Your task to perform on an android device: refresh tabs in the chrome app Image 0: 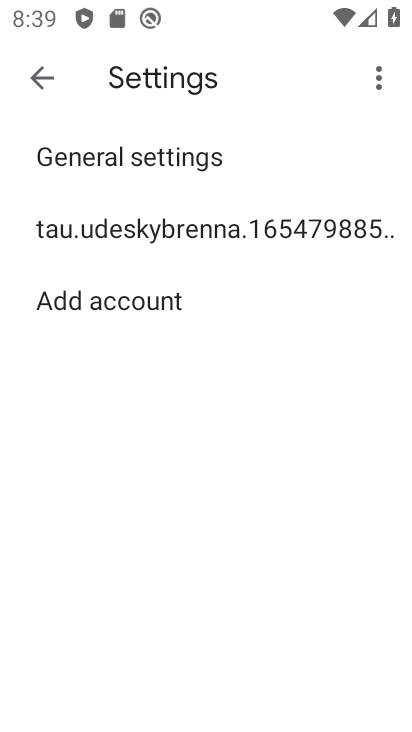
Step 0: press home button
Your task to perform on an android device: refresh tabs in the chrome app Image 1: 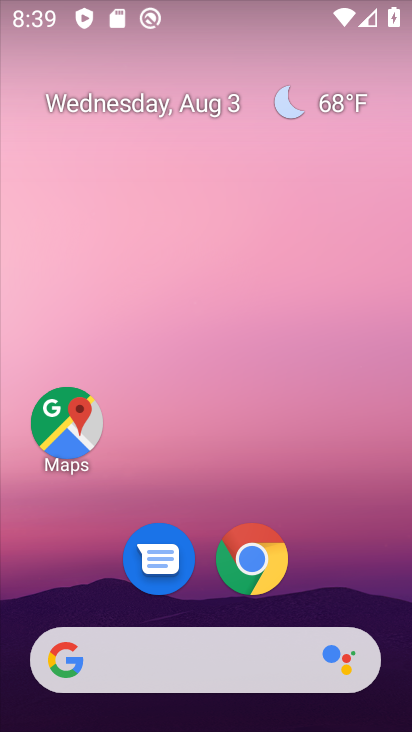
Step 1: click (259, 573)
Your task to perform on an android device: refresh tabs in the chrome app Image 2: 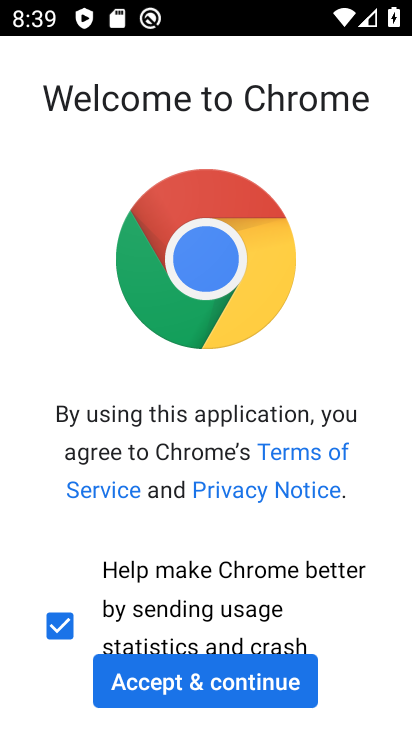
Step 2: click (269, 693)
Your task to perform on an android device: refresh tabs in the chrome app Image 3: 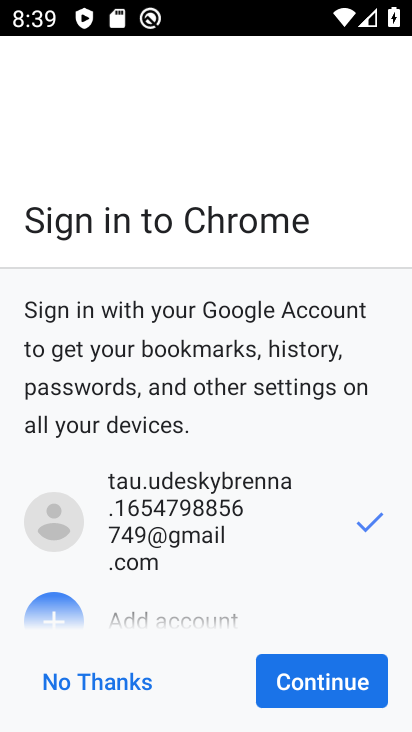
Step 3: click (349, 692)
Your task to perform on an android device: refresh tabs in the chrome app Image 4: 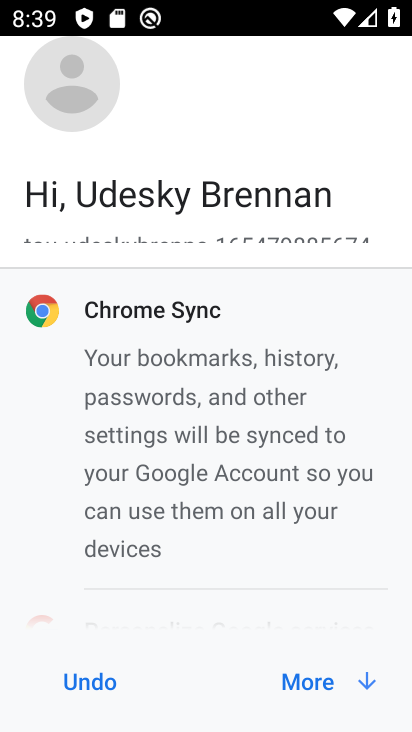
Step 4: click (321, 693)
Your task to perform on an android device: refresh tabs in the chrome app Image 5: 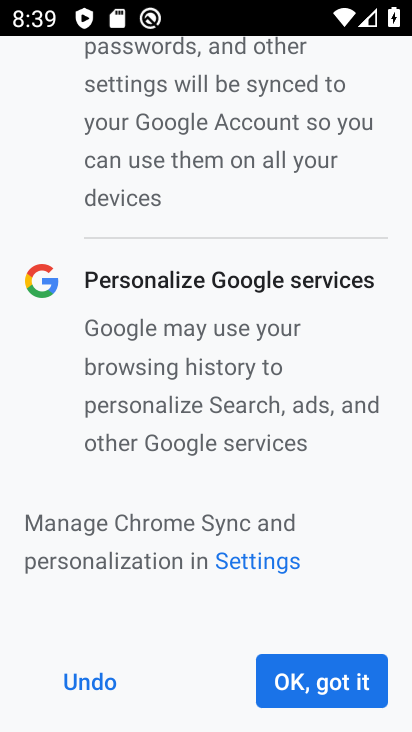
Step 5: click (321, 693)
Your task to perform on an android device: refresh tabs in the chrome app Image 6: 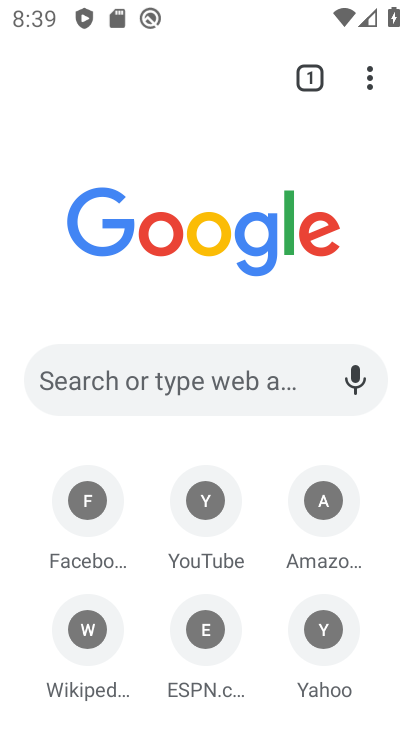
Step 6: click (388, 80)
Your task to perform on an android device: refresh tabs in the chrome app Image 7: 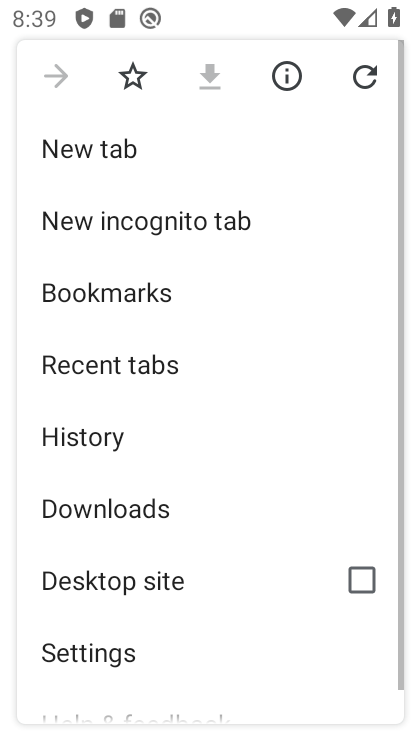
Step 7: click (388, 80)
Your task to perform on an android device: refresh tabs in the chrome app Image 8: 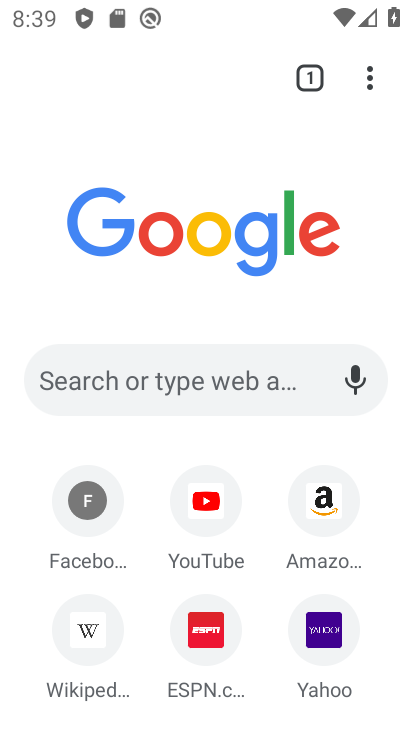
Step 8: click (388, 80)
Your task to perform on an android device: refresh tabs in the chrome app Image 9: 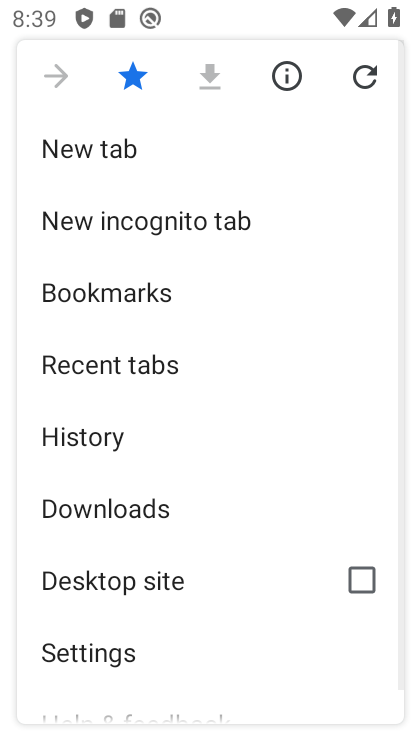
Step 9: click (350, 82)
Your task to perform on an android device: refresh tabs in the chrome app Image 10: 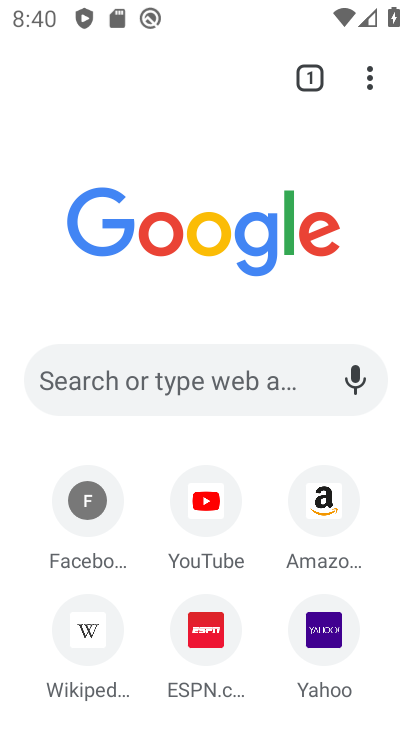
Step 10: task complete